Your task to perform on an android device: empty trash in the gmail app Image 0: 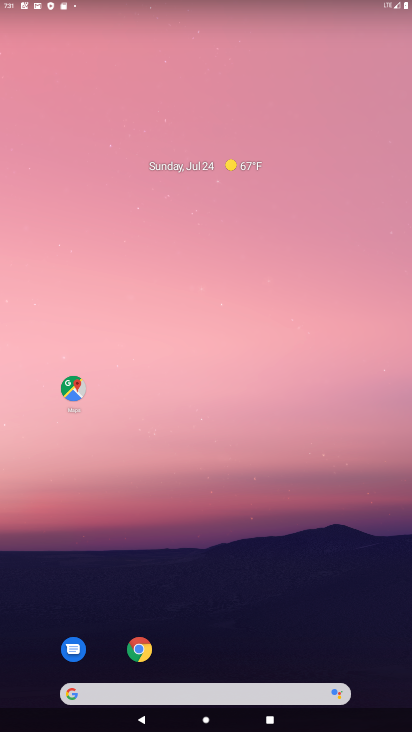
Step 0: drag from (206, 666) to (34, 123)
Your task to perform on an android device: empty trash in the gmail app Image 1: 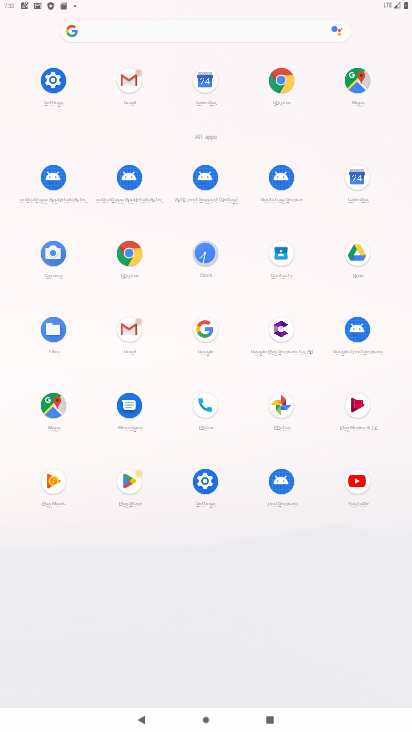
Step 1: click (136, 341)
Your task to perform on an android device: empty trash in the gmail app Image 2: 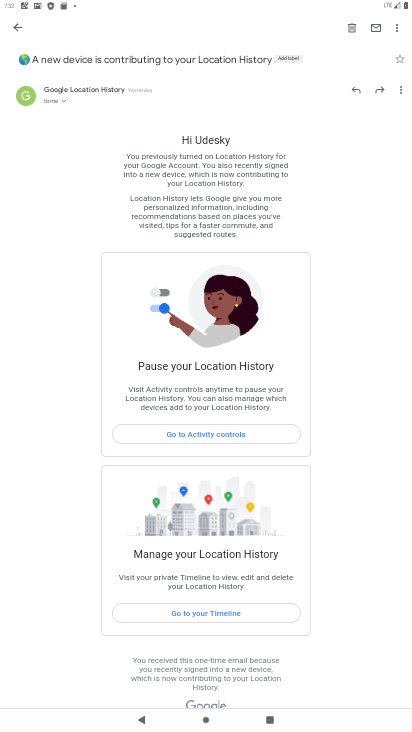
Step 2: click (22, 30)
Your task to perform on an android device: empty trash in the gmail app Image 3: 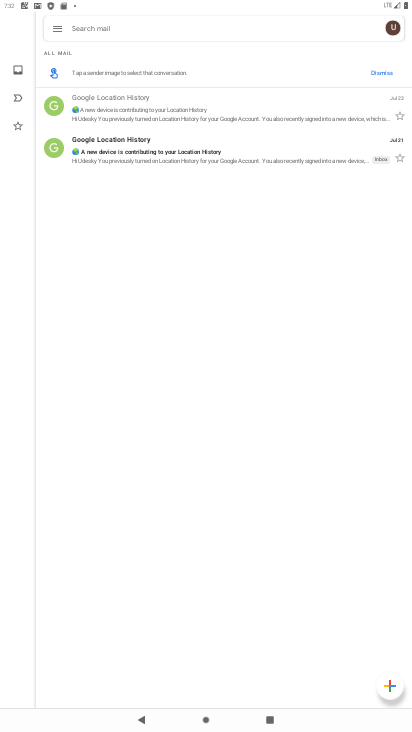
Step 3: click (22, 30)
Your task to perform on an android device: empty trash in the gmail app Image 4: 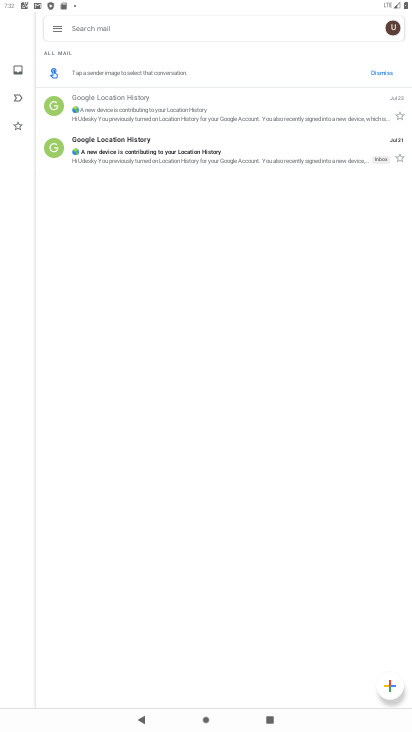
Step 4: click (55, 24)
Your task to perform on an android device: empty trash in the gmail app Image 5: 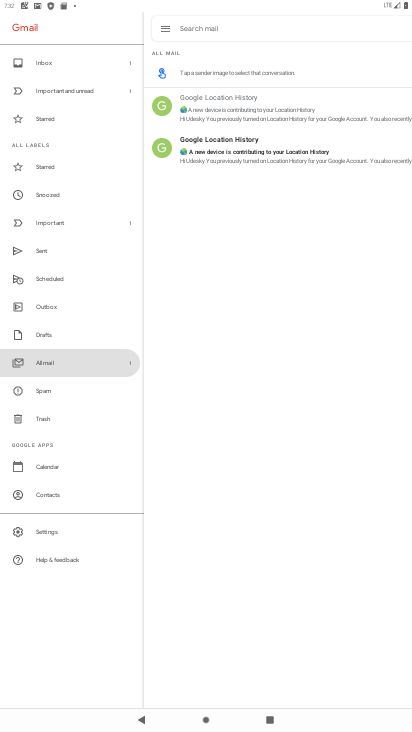
Step 5: click (44, 419)
Your task to perform on an android device: empty trash in the gmail app Image 6: 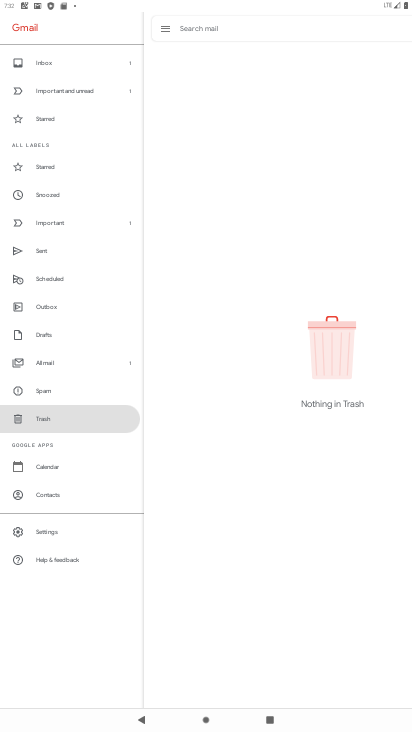
Step 6: task complete